Your task to perform on an android device: Go to ESPN.com Image 0: 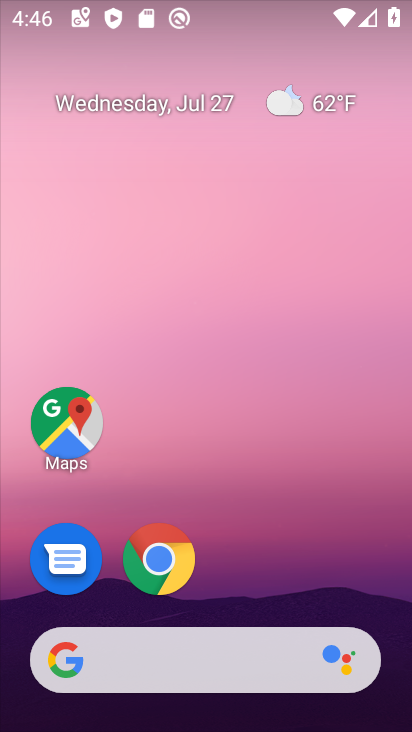
Step 0: click (170, 560)
Your task to perform on an android device: Go to ESPN.com Image 1: 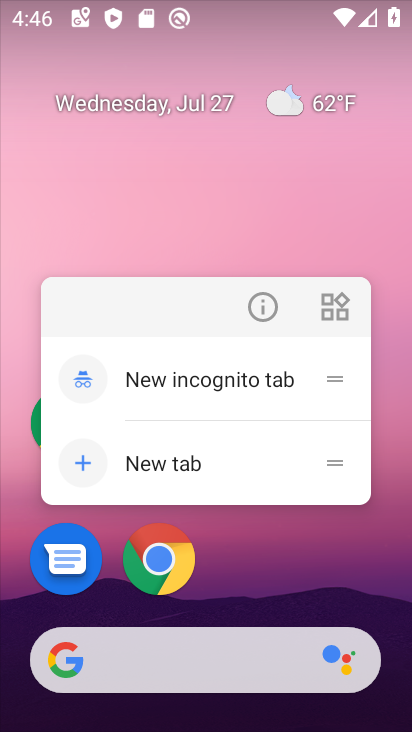
Step 1: click (174, 560)
Your task to perform on an android device: Go to ESPN.com Image 2: 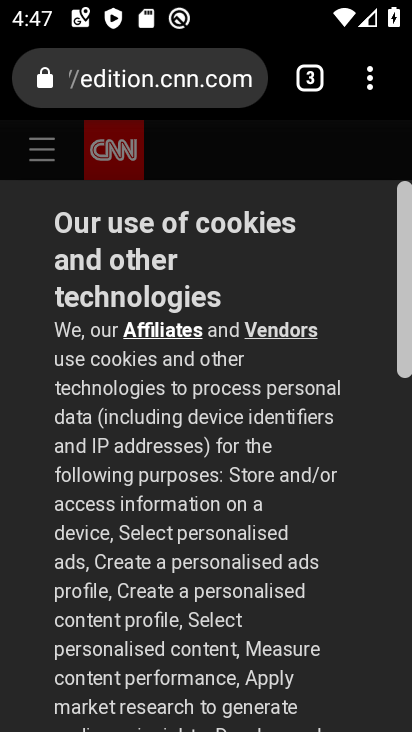
Step 2: click (318, 74)
Your task to perform on an android device: Go to ESPN.com Image 3: 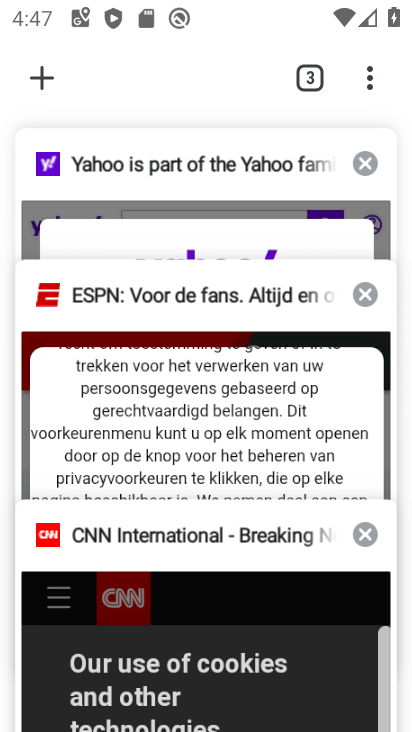
Step 3: click (141, 304)
Your task to perform on an android device: Go to ESPN.com Image 4: 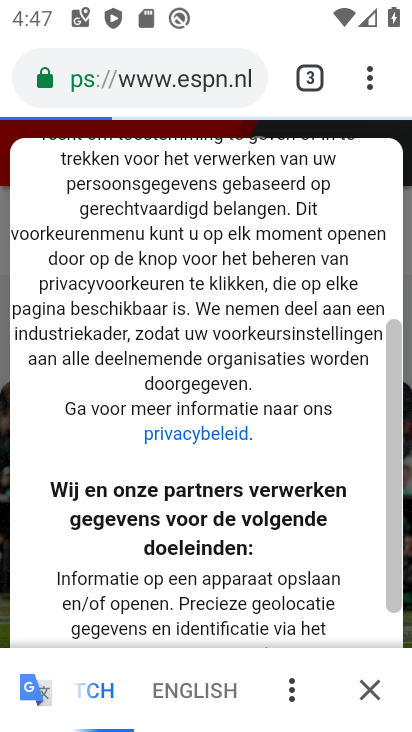
Step 4: task complete